Your task to perform on an android device: Search for a new foundation (skincare) product Image 0: 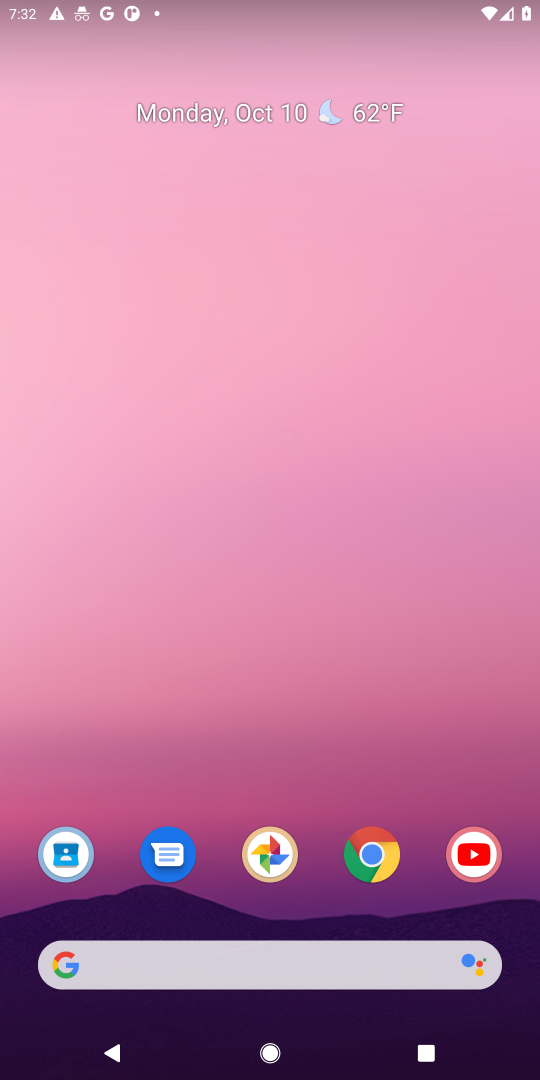
Step 0: click (361, 861)
Your task to perform on an android device: Search for a new foundation (skincare) product Image 1: 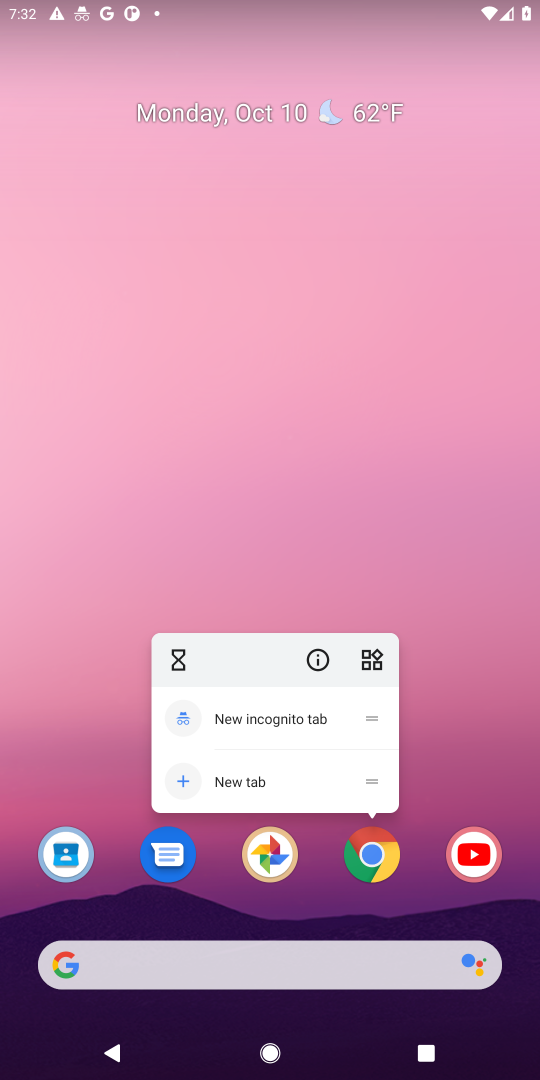
Step 1: click (361, 861)
Your task to perform on an android device: Search for a new foundation (skincare) product Image 2: 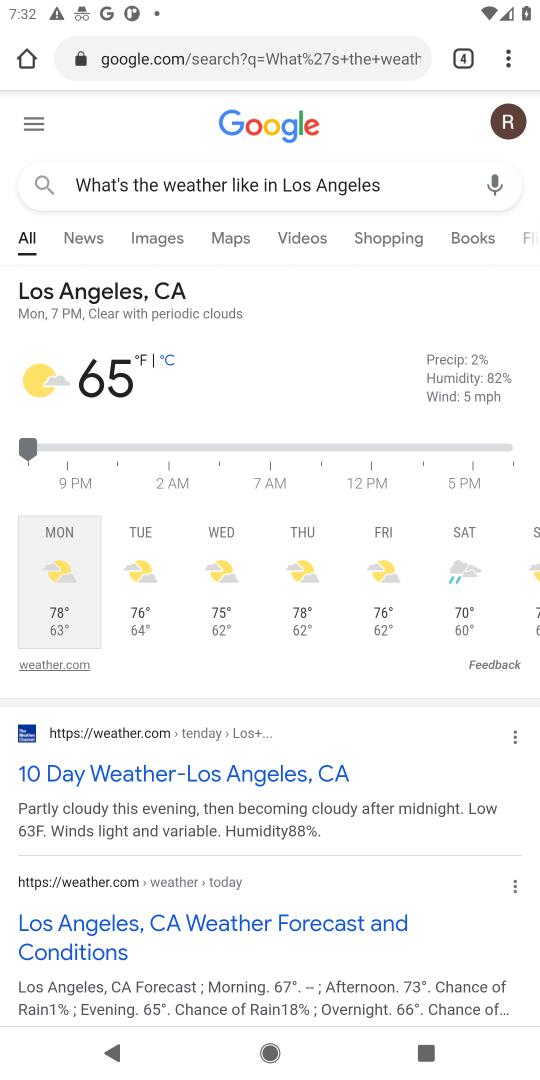
Step 2: click (268, 59)
Your task to perform on an android device: Search for a new foundation (skincare) product Image 3: 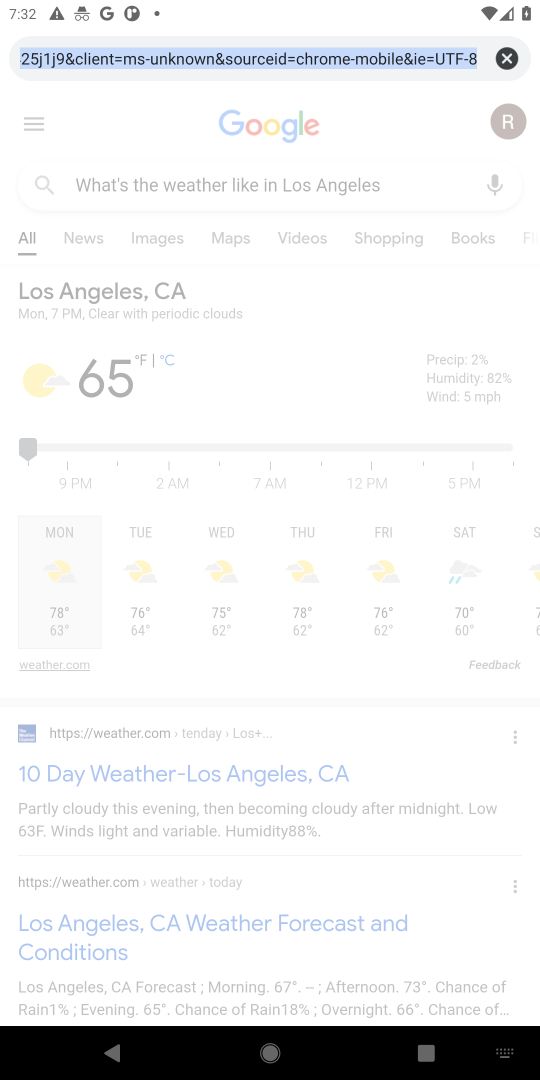
Step 3: click (508, 56)
Your task to perform on an android device: Search for a new foundation (skincare) product Image 4: 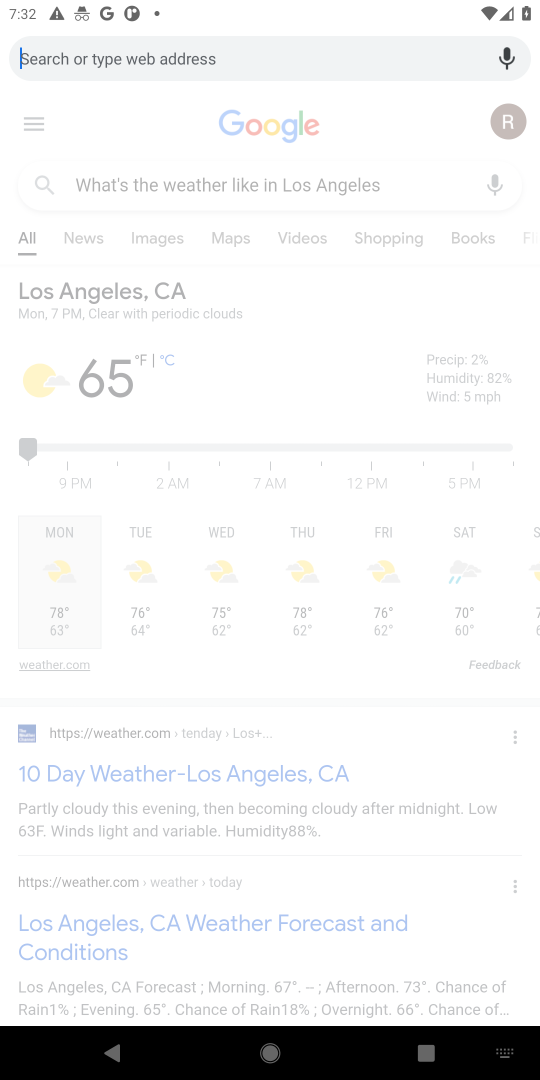
Step 4: type "new foundation (skincare) product"
Your task to perform on an android device: Search for a new foundation (skincare) product Image 5: 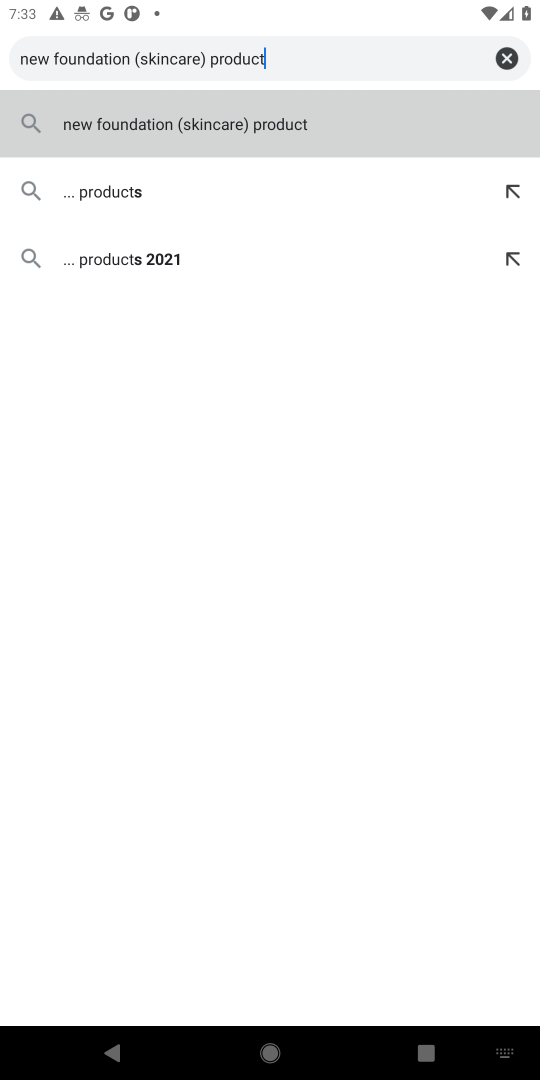
Step 5: click (176, 125)
Your task to perform on an android device: Search for a new foundation (skincare) product Image 6: 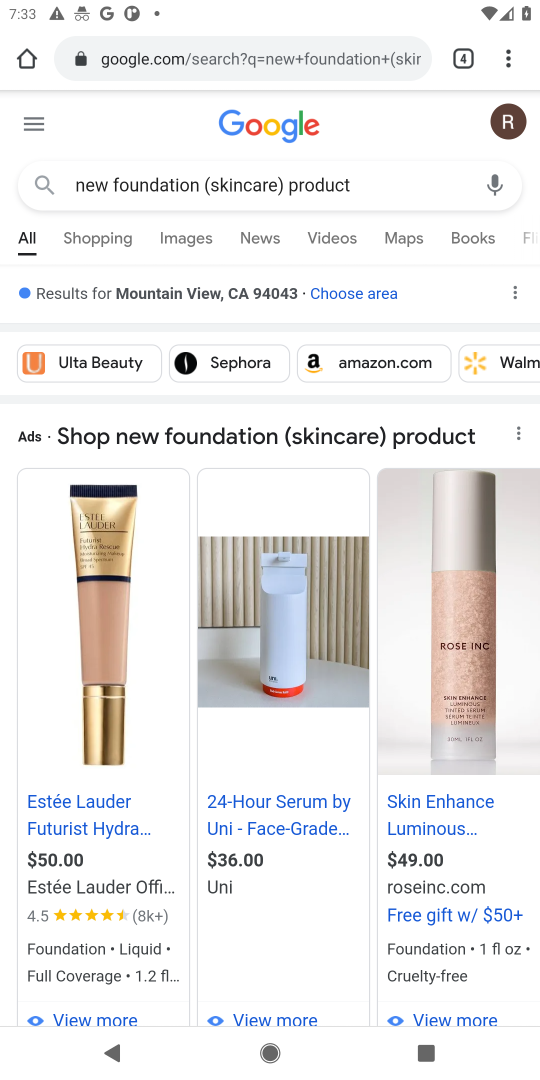
Step 6: task complete